Your task to perform on an android device: turn off translation in the chrome app Image 0: 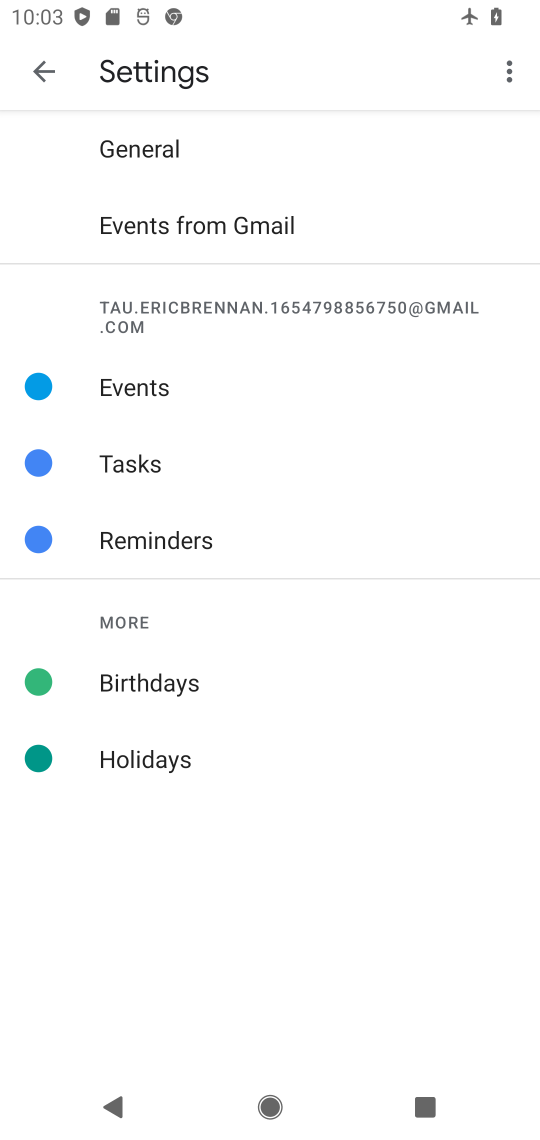
Step 0: press home button
Your task to perform on an android device: turn off translation in the chrome app Image 1: 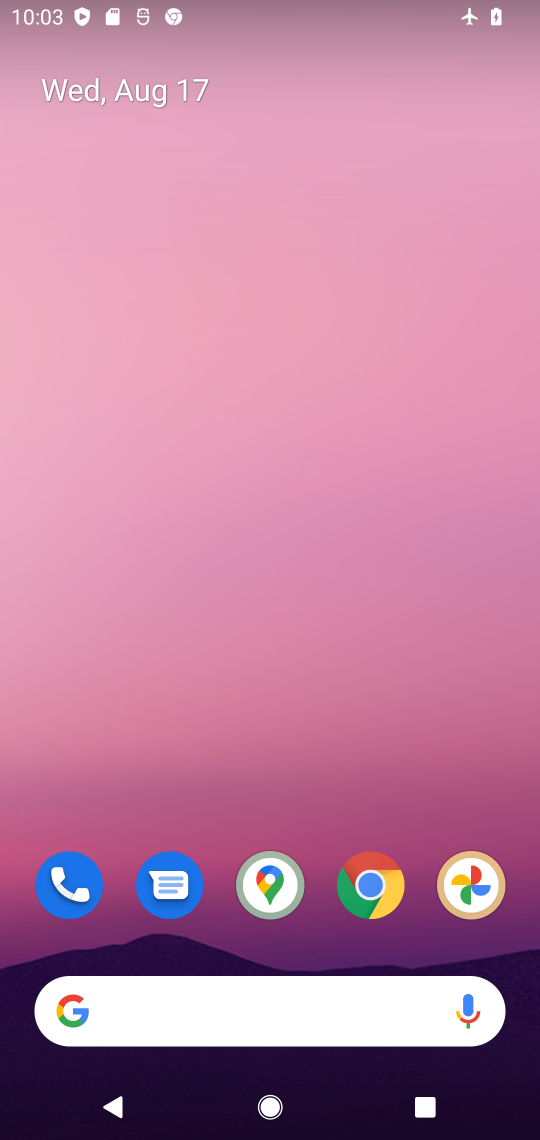
Step 1: click (367, 886)
Your task to perform on an android device: turn off translation in the chrome app Image 2: 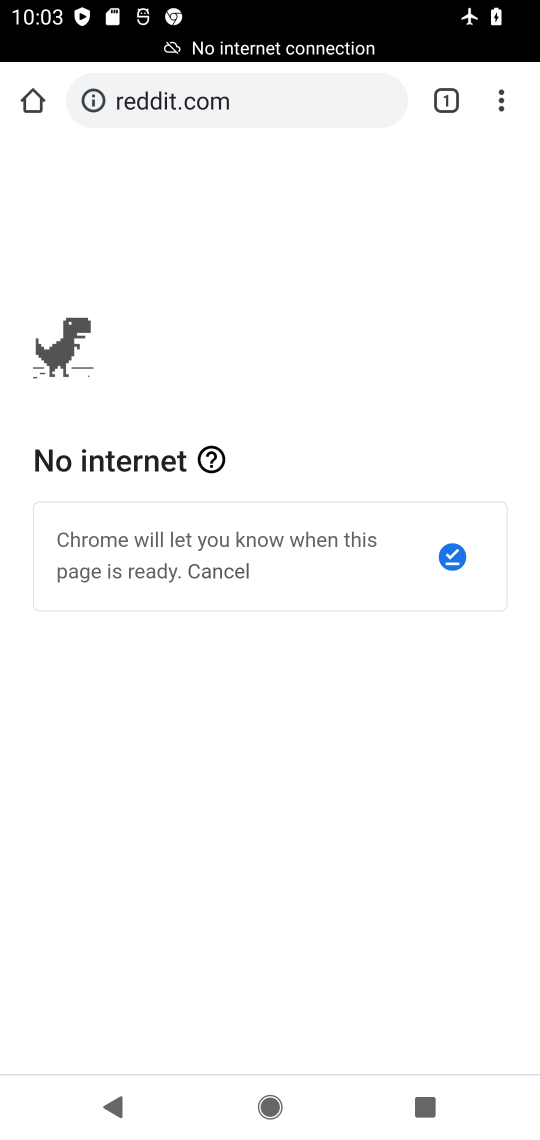
Step 2: click (494, 109)
Your task to perform on an android device: turn off translation in the chrome app Image 3: 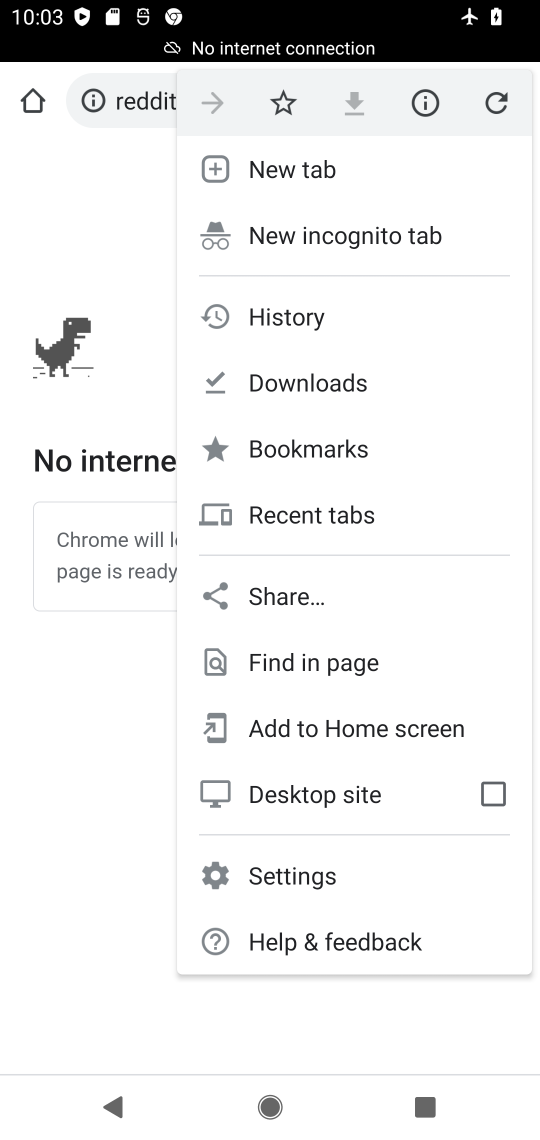
Step 3: click (294, 881)
Your task to perform on an android device: turn off translation in the chrome app Image 4: 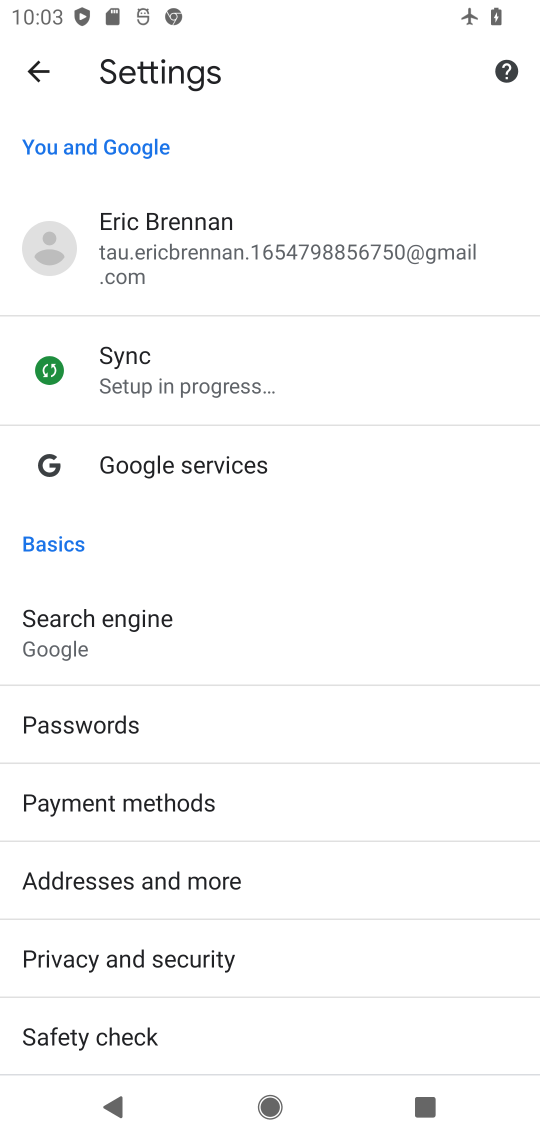
Step 4: drag from (258, 977) to (308, 356)
Your task to perform on an android device: turn off translation in the chrome app Image 5: 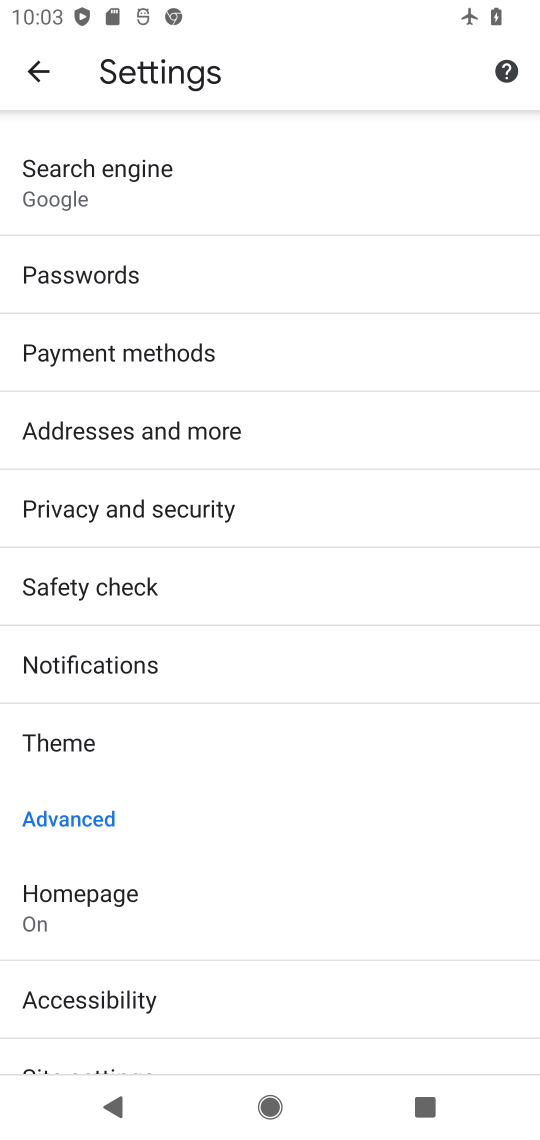
Step 5: drag from (291, 991) to (280, 136)
Your task to perform on an android device: turn off translation in the chrome app Image 6: 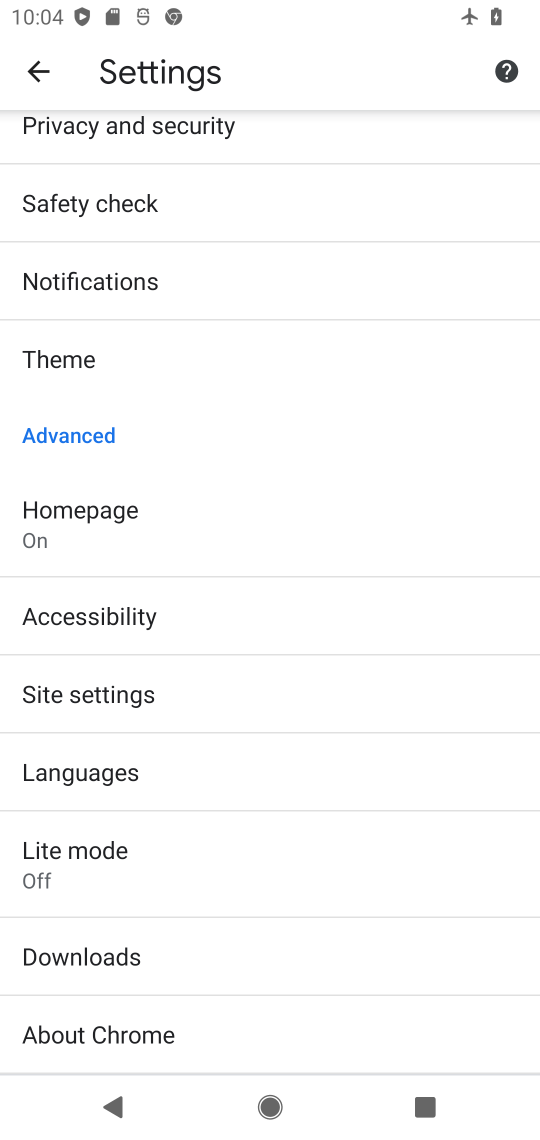
Step 6: click (72, 768)
Your task to perform on an android device: turn off translation in the chrome app Image 7: 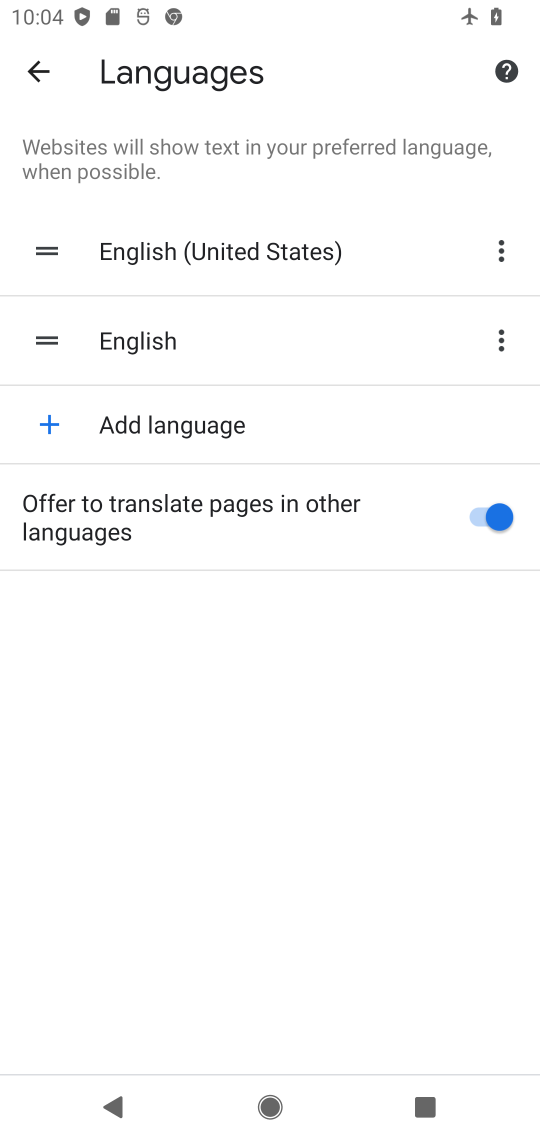
Step 7: click (471, 518)
Your task to perform on an android device: turn off translation in the chrome app Image 8: 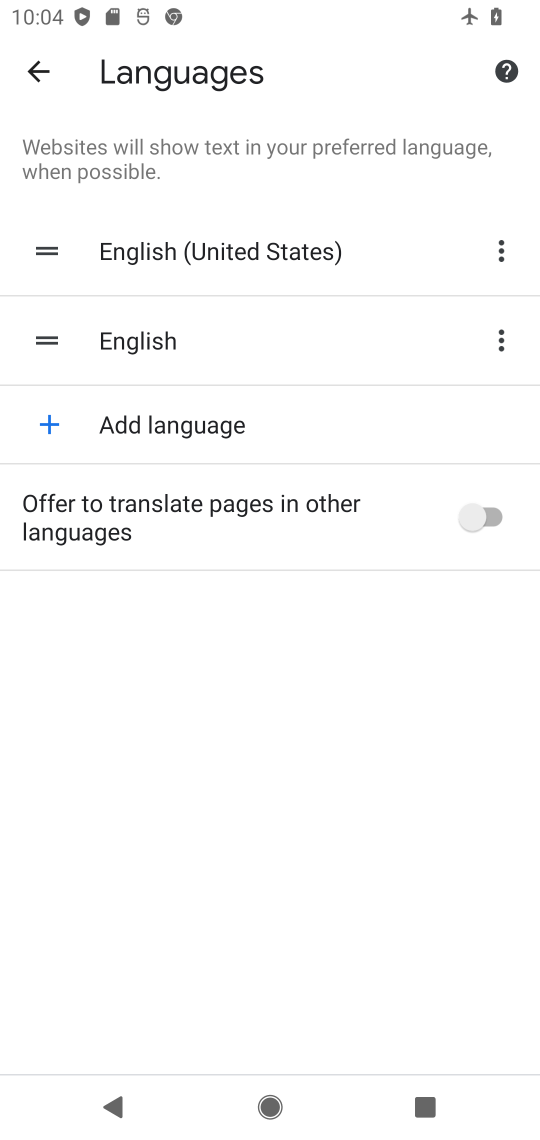
Step 8: task complete